Your task to perform on an android device: Search for pizza restaurants on Maps Image 0: 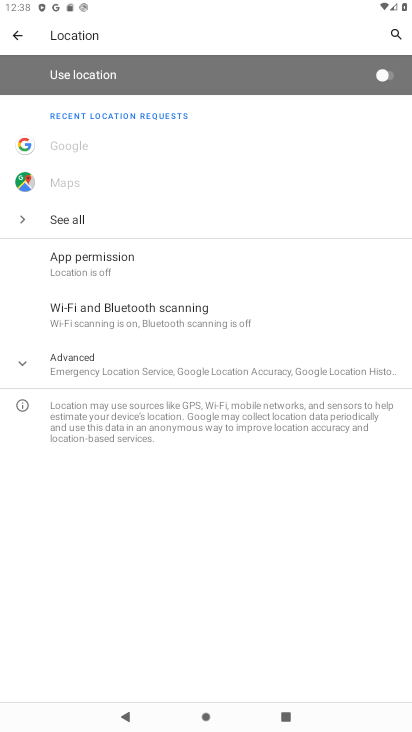
Step 0: press home button
Your task to perform on an android device: Search for pizza restaurants on Maps Image 1: 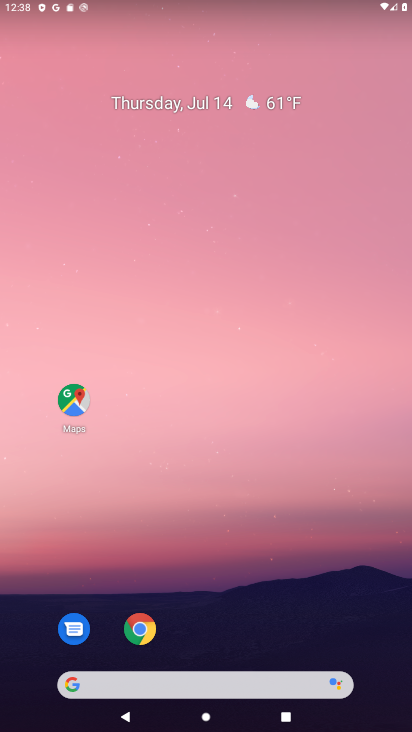
Step 1: click (84, 392)
Your task to perform on an android device: Search for pizza restaurants on Maps Image 2: 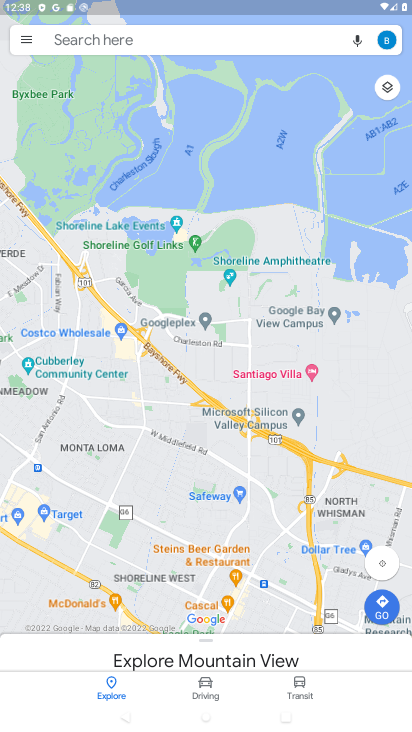
Step 2: click (97, 40)
Your task to perform on an android device: Search for pizza restaurants on Maps Image 3: 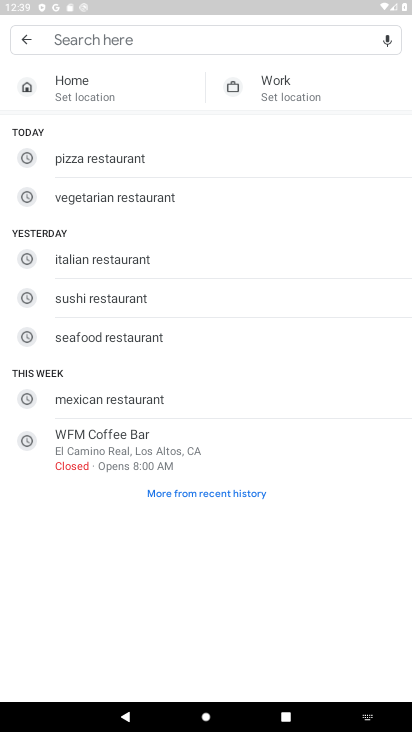
Step 3: click (185, 176)
Your task to perform on an android device: Search for pizza restaurants on Maps Image 4: 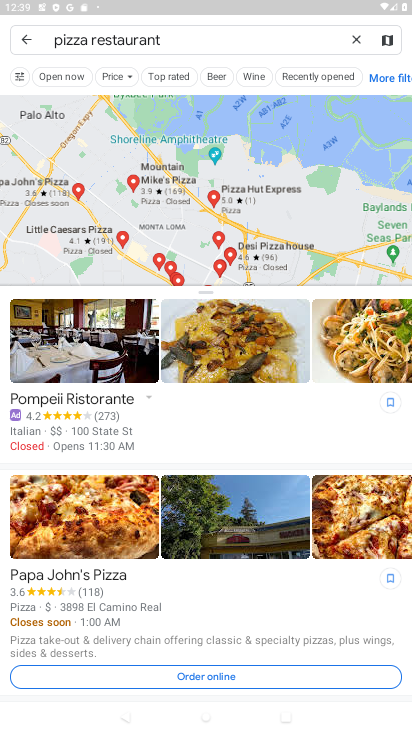
Step 4: task complete